Your task to perform on an android device: Toggle the flashlight Image 0: 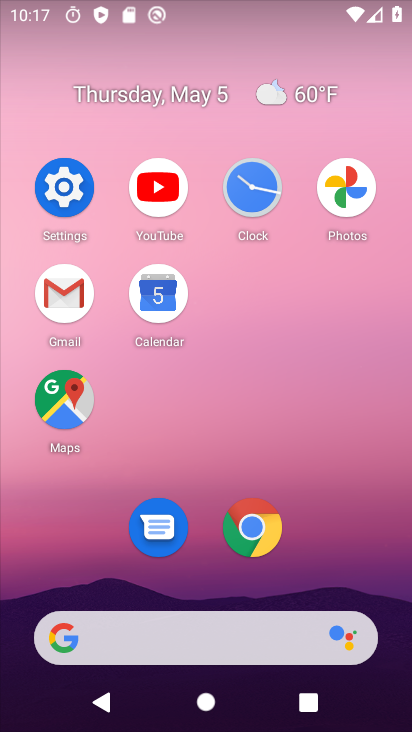
Step 0: drag from (242, 0) to (248, 297)
Your task to perform on an android device: Toggle the flashlight Image 1: 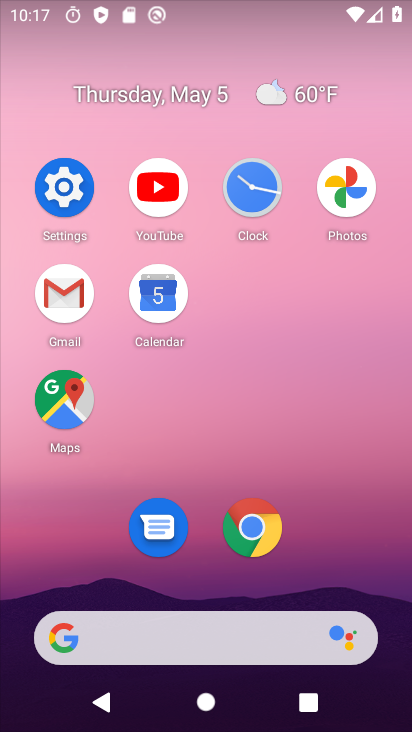
Step 1: task complete